Your task to perform on an android device: Open Youtube and go to "Your channel" Image 0: 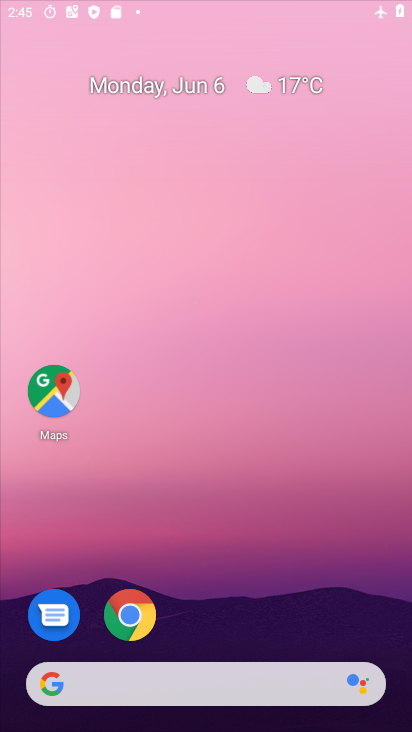
Step 0: click (272, 98)
Your task to perform on an android device: Open Youtube and go to "Your channel" Image 1: 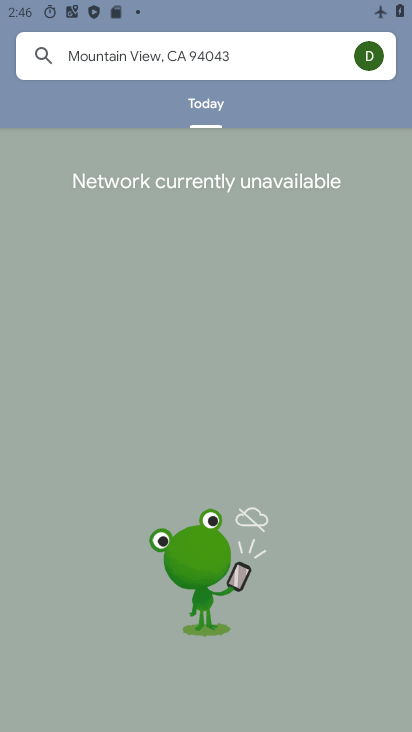
Step 1: press home button
Your task to perform on an android device: Open Youtube and go to "Your channel" Image 2: 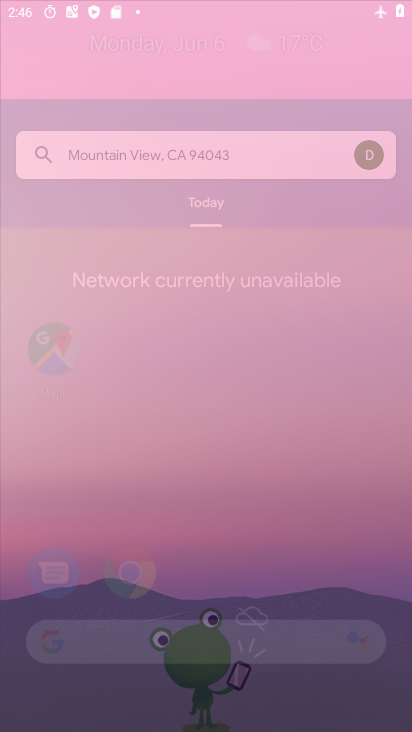
Step 2: drag from (207, 531) to (327, 28)
Your task to perform on an android device: Open Youtube and go to "Your channel" Image 3: 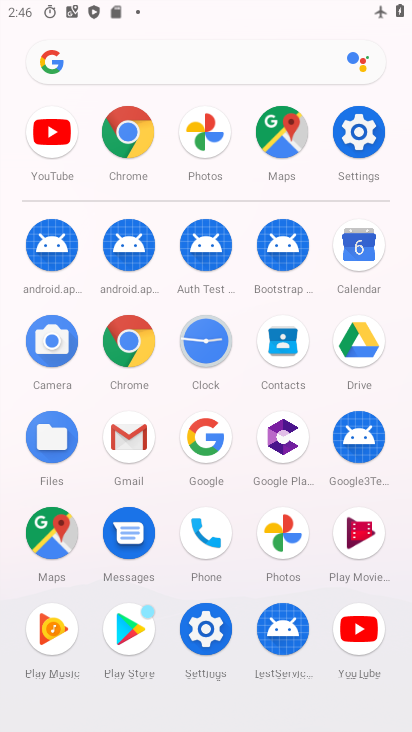
Step 3: click (344, 636)
Your task to perform on an android device: Open Youtube and go to "Your channel" Image 4: 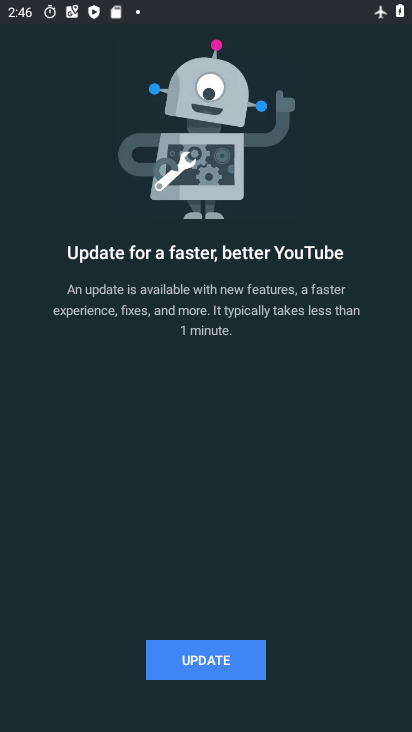
Step 4: click (212, 660)
Your task to perform on an android device: Open Youtube and go to "Your channel" Image 5: 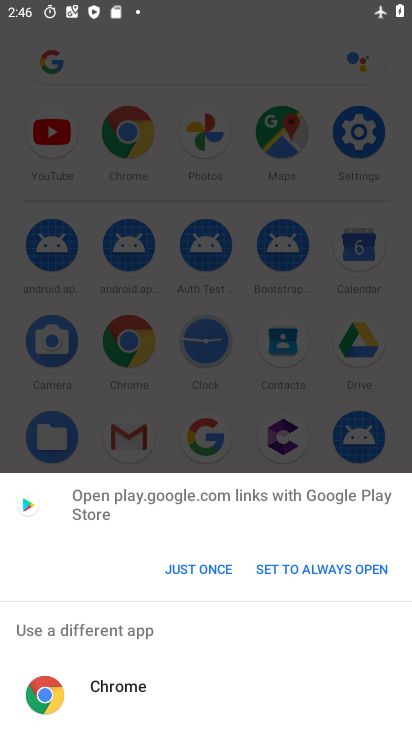
Step 5: click (194, 562)
Your task to perform on an android device: Open Youtube and go to "Your channel" Image 6: 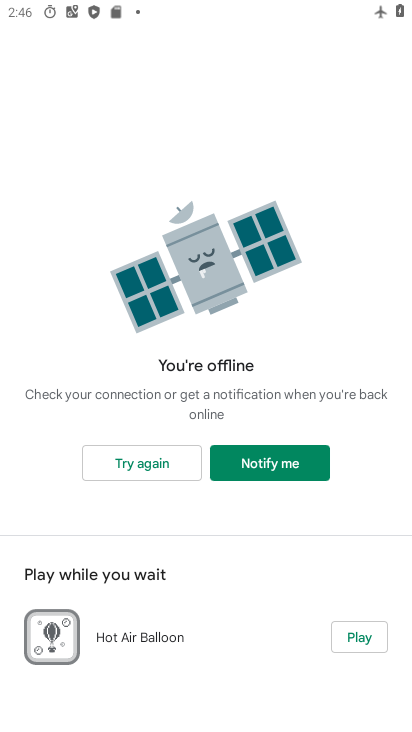
Step 6: task complete